Your task to perform on an android device: Show me popular games on the Play Store Image 0: 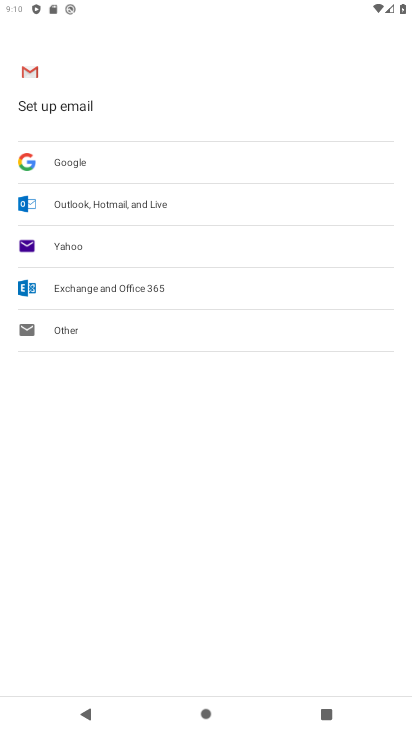
Step 0: press home button
Your task to perform on an android device: Show me popular games on the Play Store Image 1: 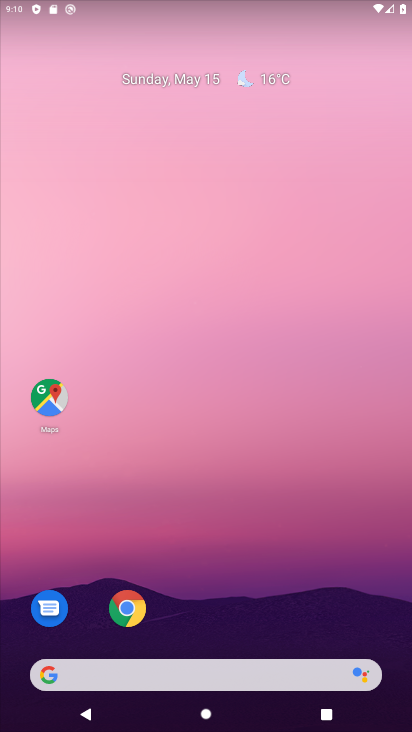
Step 1: drag from (213, 634) to (385, 82)
Your task to perform on an android device: Show me popular games on the Play Store Image 2: 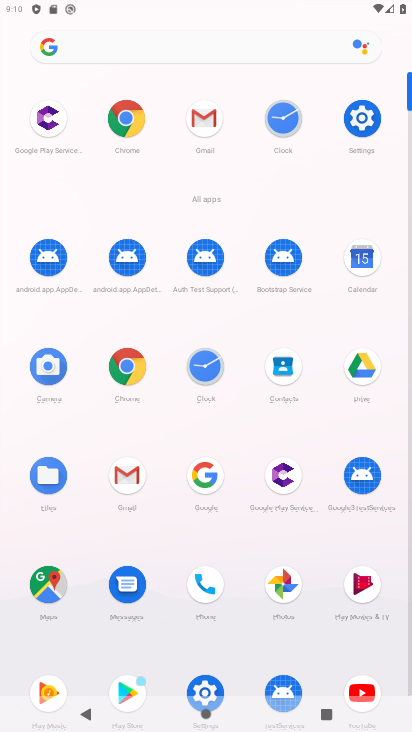
Step 2: click (132, 678)
Your task to perform on an android device: Show me popular games on the Play Store Image 3: 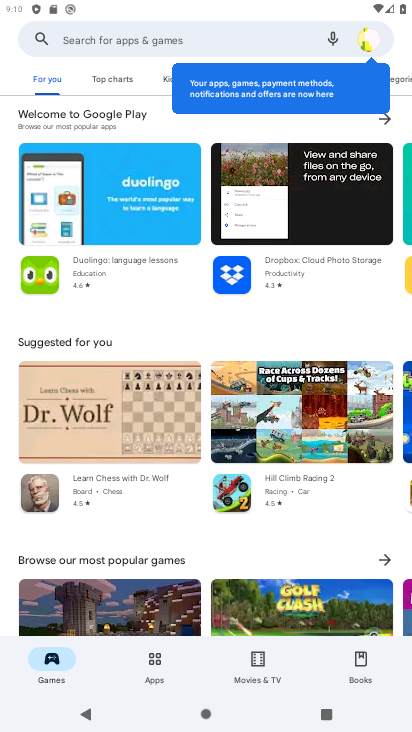
Step 3: click (392, 565)
Your task to perform on an android device: Show me popular games on the Play Store Image 4: 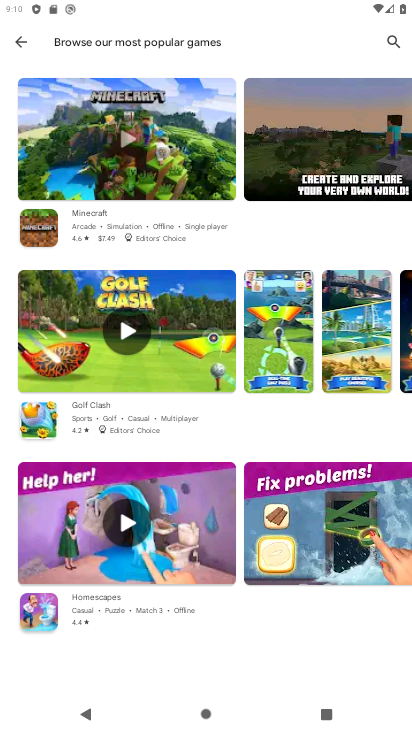
Step 4: task complete